Your task to perform on an android device: stop showing notifications on the lock screen Image 0: 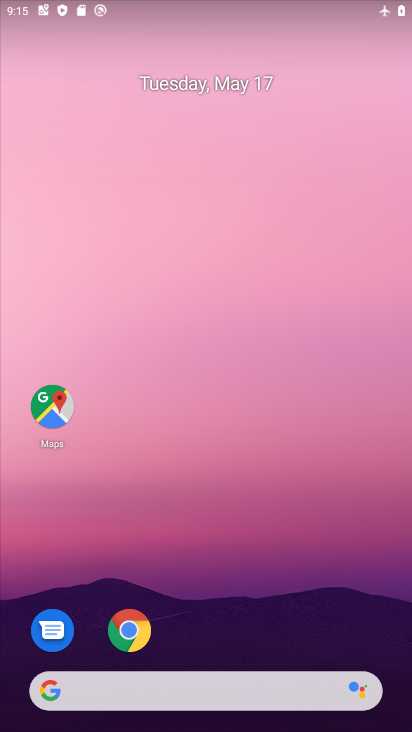
Step 0: drag from (286, 615) to (284, 158)
Your task to perform on an android device: stop showing notifications on the lock screen Image 1: 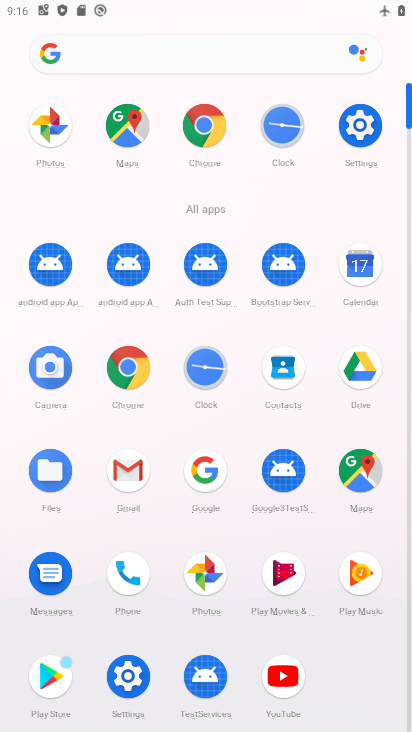
Step 1: click (352, 112)
Your task to perform on an android device: stop showing notifications on the lock screen Image 2: 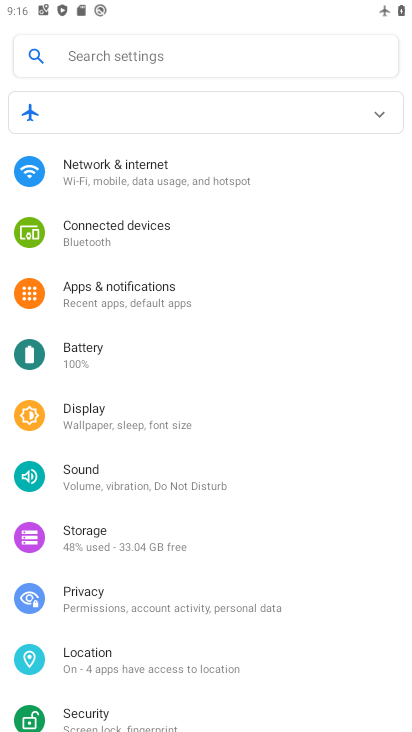
Step 2: click (155, 303)
Your task to perform on an android device: stop showing notifications on the lock screen Image 3: 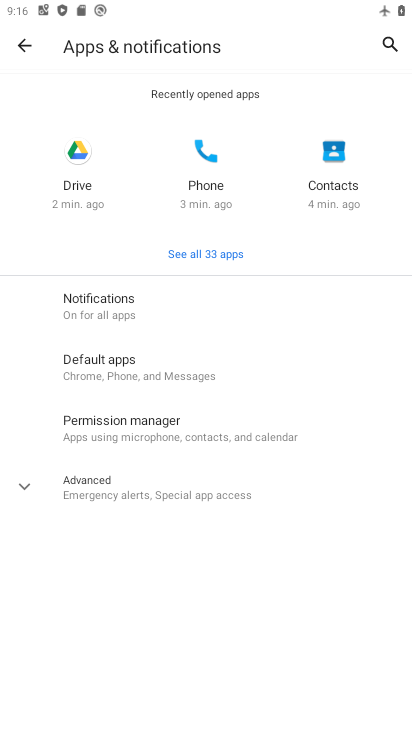
Step 3: click (180, 318)
Your task to perform on an android device: stop showing notifications on the lock screen Image 4: 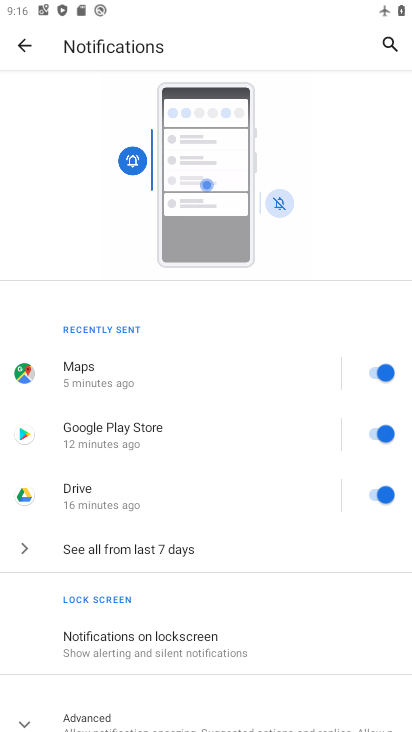
Step 4: click (176, 631)
Your task to perform on an android device: stop showing notifications on the lock screen Image 5: 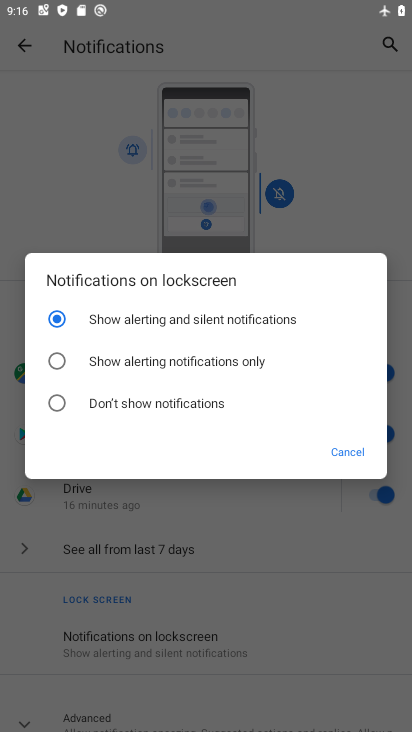
Step 5: click (57, 401)
Your task to perform on an android device: stop showing notifications on the lock screen Image 6: 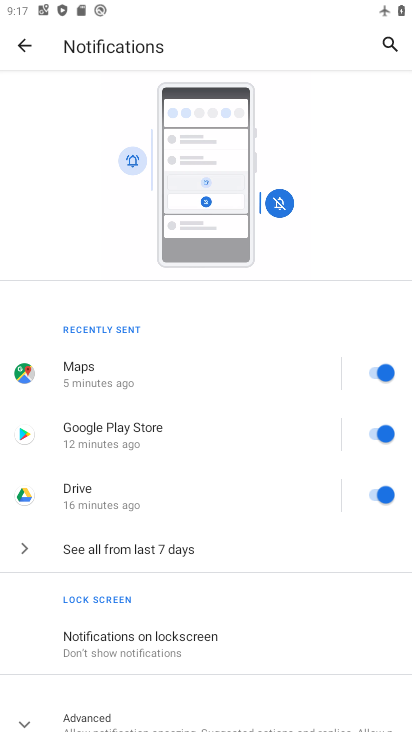
Step 6: task complete